Your task to perform on an android device: turn on javascript in the chrome app Image 0: 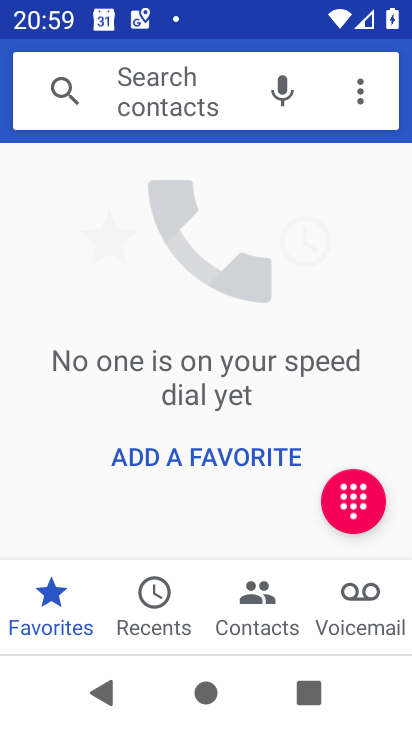
Step 0: press home button
Your task to perform on an android device: turn on javascript in the chrome app Image 1: 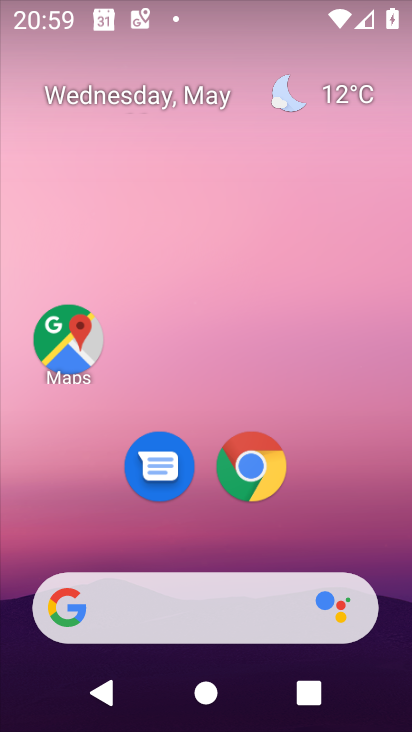
Step 1: click (249, 461)
Your task to perform on an android device: turn on javascript in the chrome app Image 2: 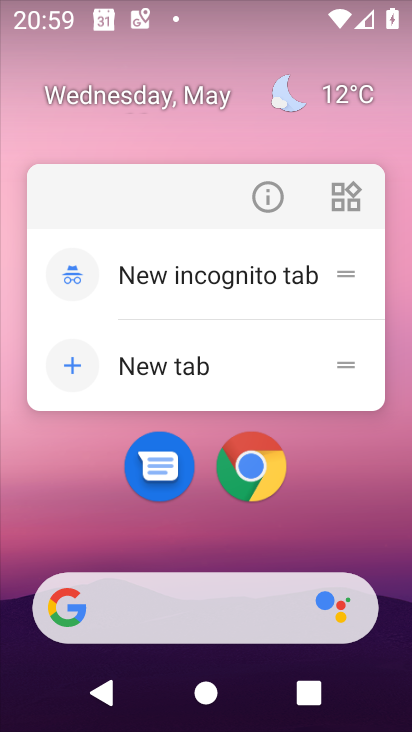
Step 2: click (249, 461)
Your task to perform on an android device: turn on javascript in the chrome app Image 3: 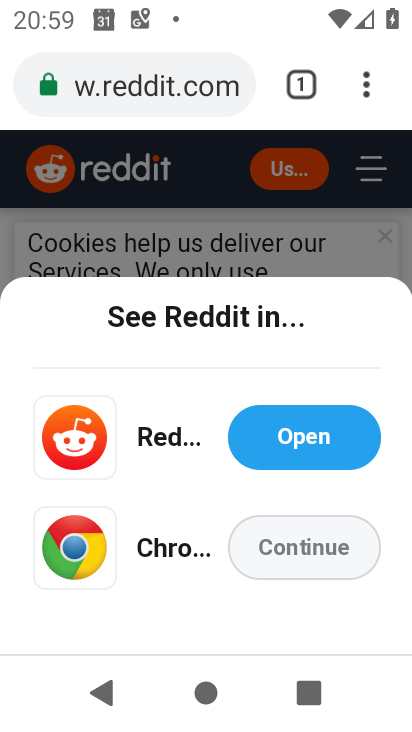
Step 3: click (300, 543)
Your task to perform on an android device: turn on javascript in the chrome app Image 4: 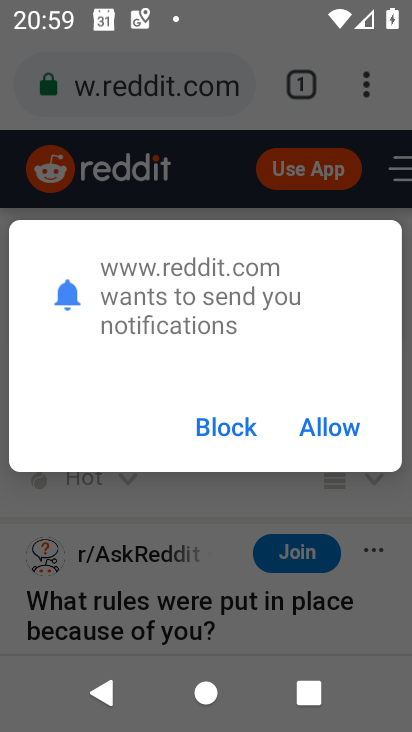
Step 4: click (325, 431)
Your task to perform on an android device: turn on javascript in the chrome app Image 5: 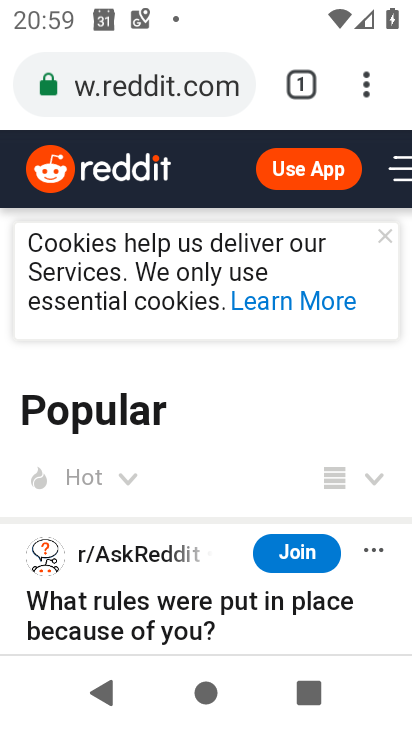
Step 5: click (371, 81)
Your task to perform on an android device: turn on javascript in the chrome app Image 6: 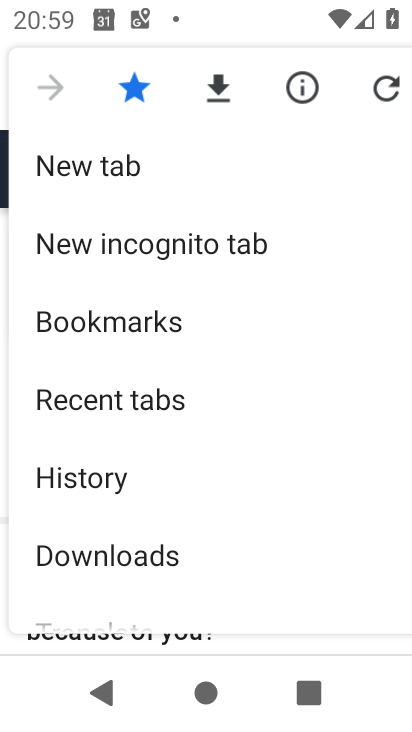
Step 6: drag from (225, 554) to (229, 103)
Your task to perform on an android device: turn on javascript in the chrome app Image 7: 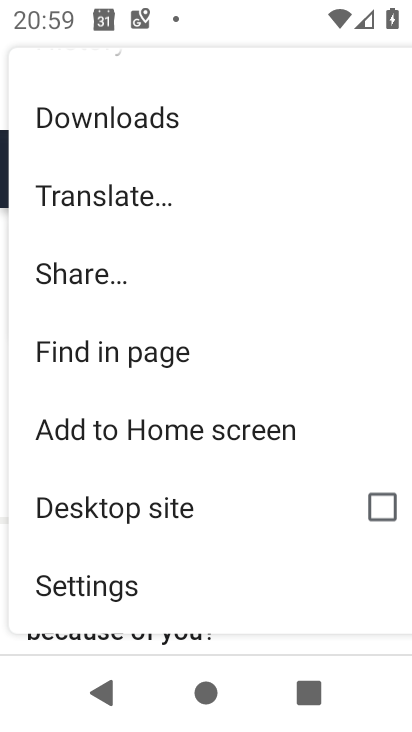
Step 7: click (151, 579)
Your task to perform on an android device: turn on javascript in the chrome app Image 8: 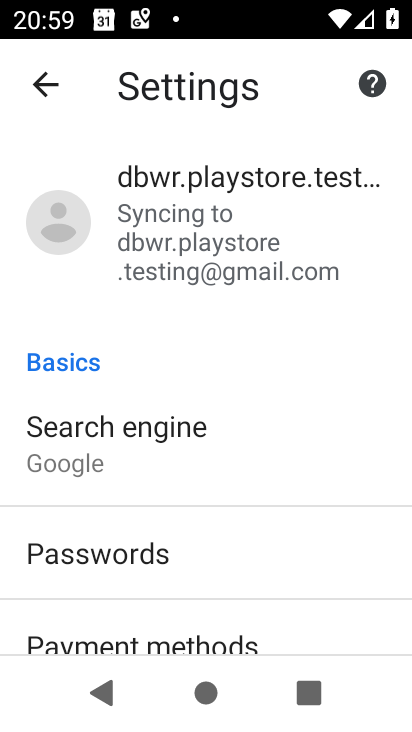
Step 8: drag from (213, 577) to (211, 146)
Your task to perform on an android device: turn on javascript in the chrome app Image 9: 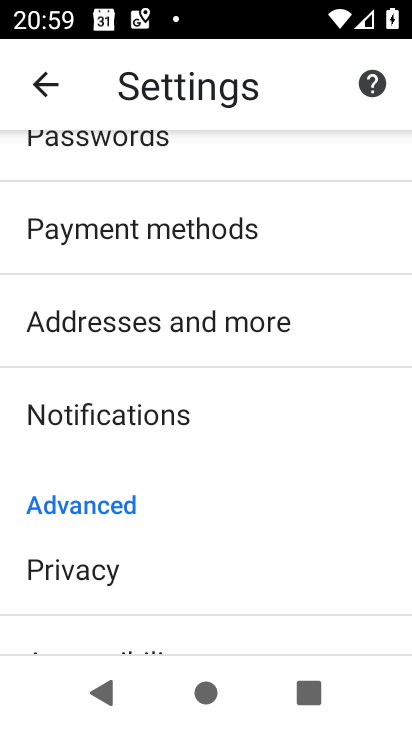
Step 9: drag from (198, 569) to (248, 29)
Your task to perform on an android device: turn on javascript in the chrome app Image 10: 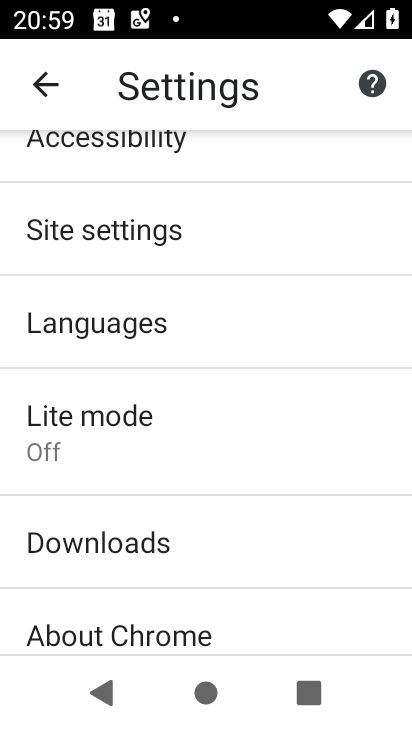
Step 10: click (204, 230)
Your task to perform on an android device: turn on javascript in the chrome app Image 11: 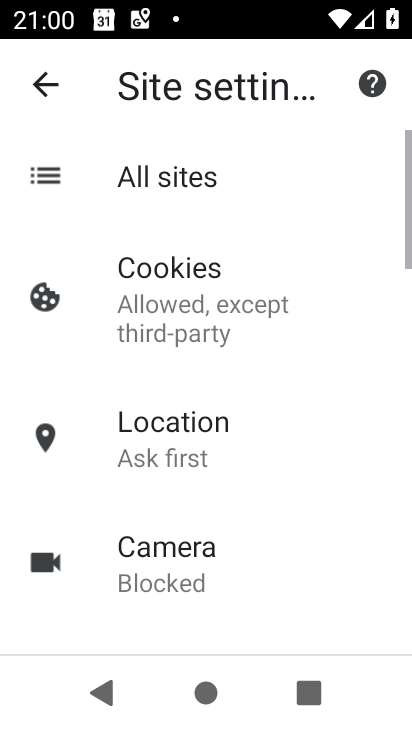
Step 11: drag from (243, 586) to (260, 153)
Your task to perform on an android device: turn on javascript in the chrome app Image 12: 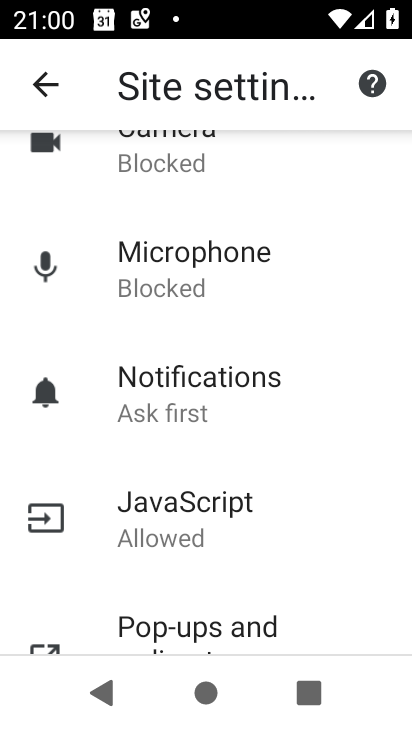
Step 12: click (215, 524)
Your task to perform on an android device: turn on javascript in the chrome app Image 13: 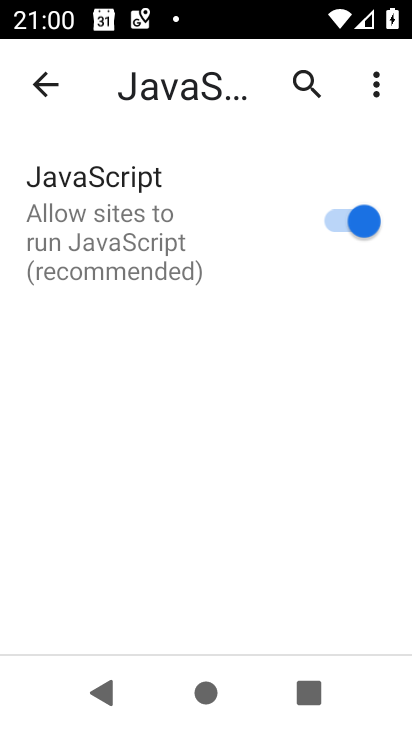
Step 13: task complete